Your task to perform on an android device: Turn on the flashlight Image 0: 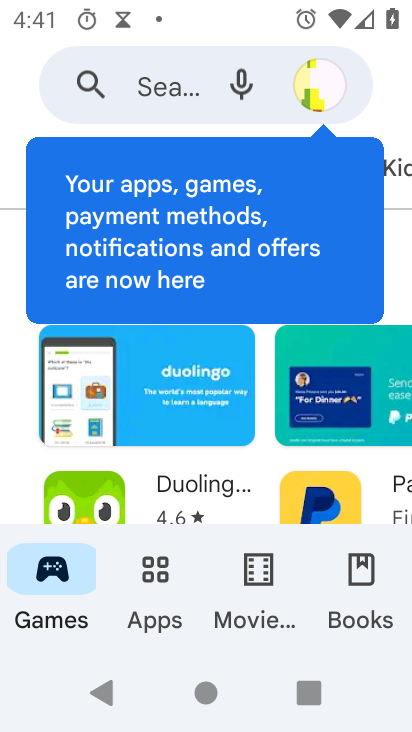
Step 0: press home button
Your task to perform on an android device: Turn on the flashlight Image 1: 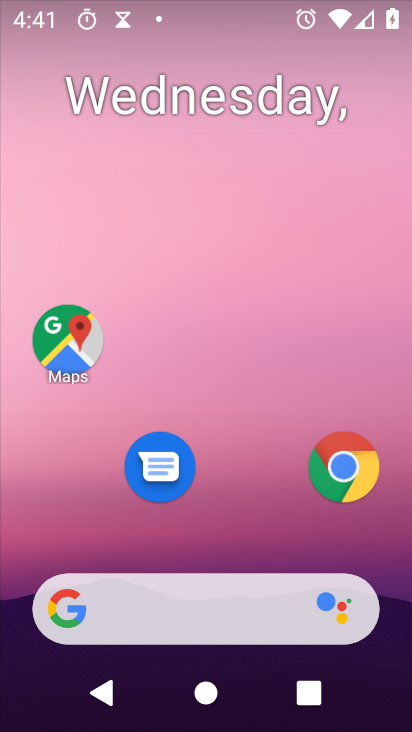
Step 1: drag from (345, 19) to (340, 465)
Your task to perform on an android device: Turn on the flashlight Image 2: 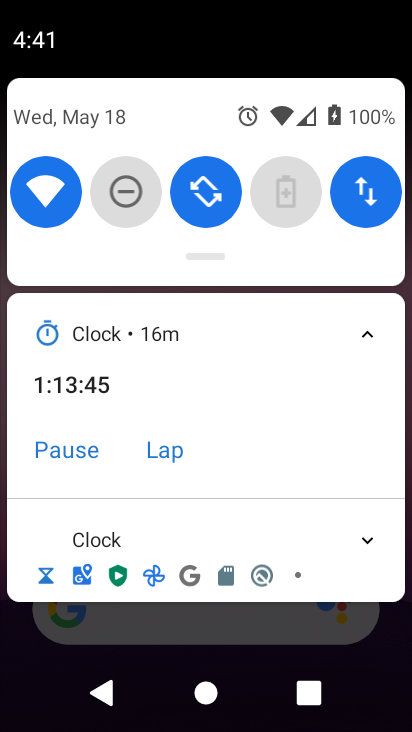
Step 2: drag from (248, 230) to (242, 610)
Your task to perform on an android device: Turn on the flashlight Image 3: 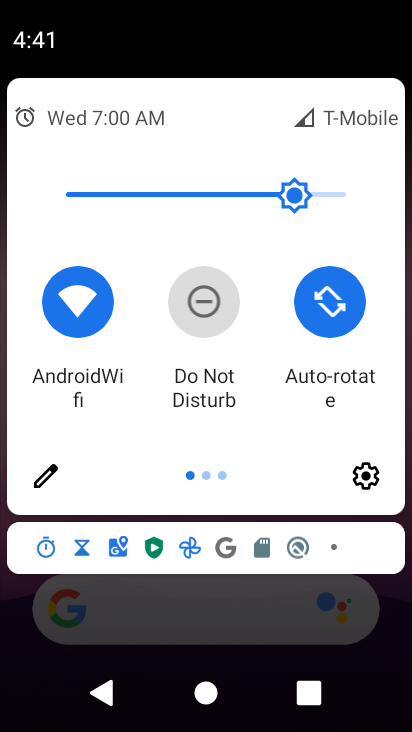
Step 3: click (49, 481)
Your task to perform on an android device: Turn on the flashlight Image 4: 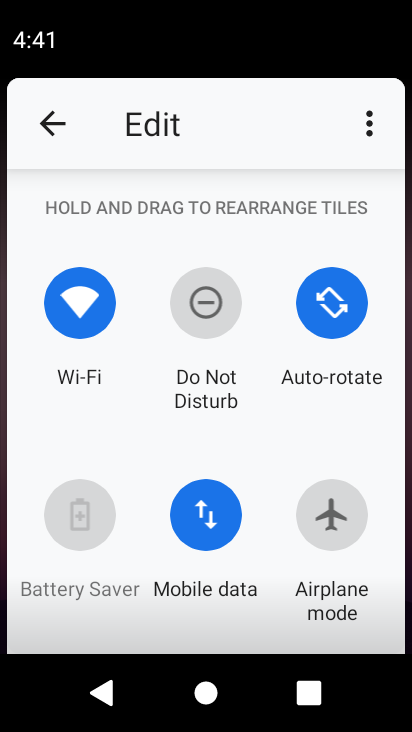
Step 4: task complete